Your task to perform on an android device: empty trash in the gmail app Image 0: 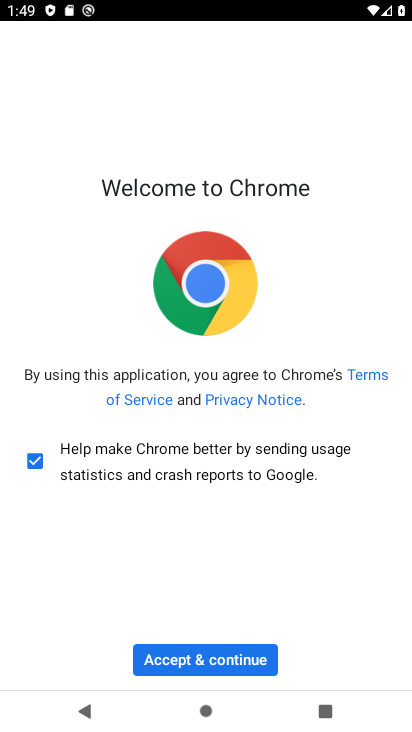
Step 0: press home button
Your task to perform on an android device: empty trash in the gmail app Image 1: 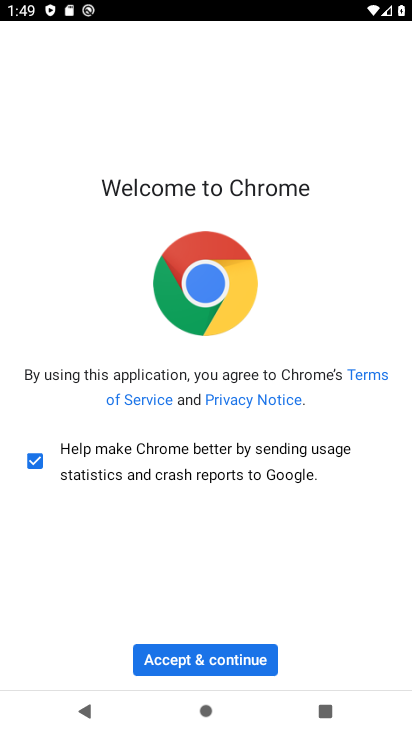
Step 1: press home button
Your task to perform on an android device: empty trash in the gmail app Image 2: 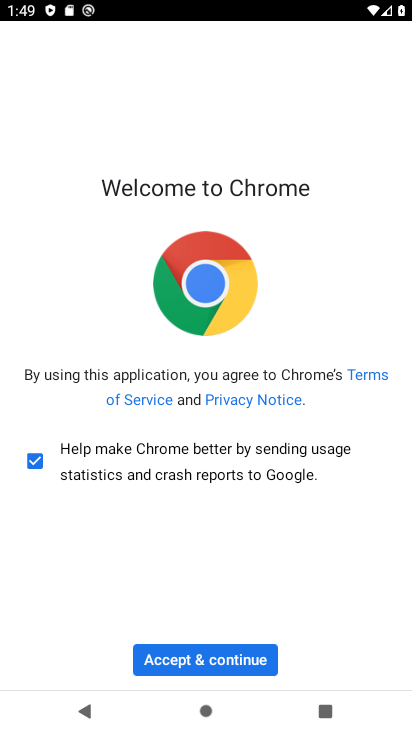
Step 2: click (206, 339)
Your task to perform on an android device: empty trash in the gmail app Image 3: 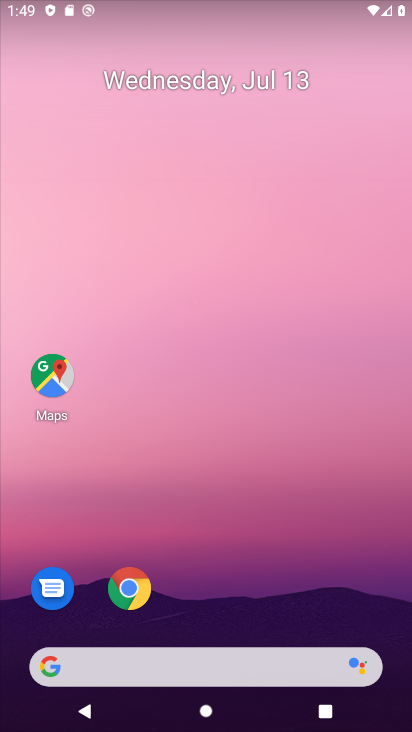
Step 3: drag from (233, 609) to (259, 160)
Your task to perform on an android device: empty trash in the gmail app Image 4: 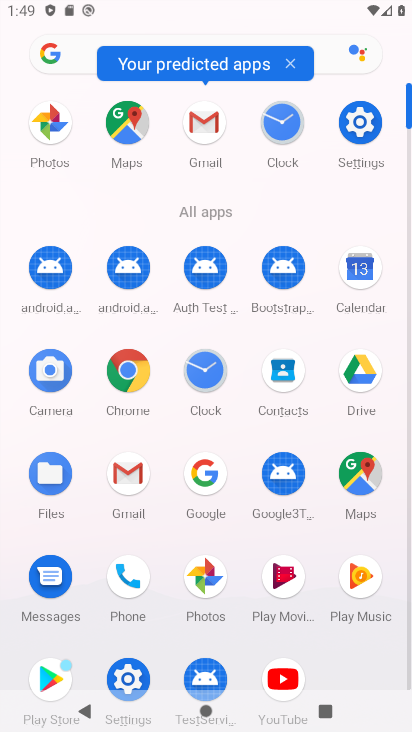
Step 4: click (125, 469)
Your task to perform on an android device: empty trash in the gmail app Image 5: 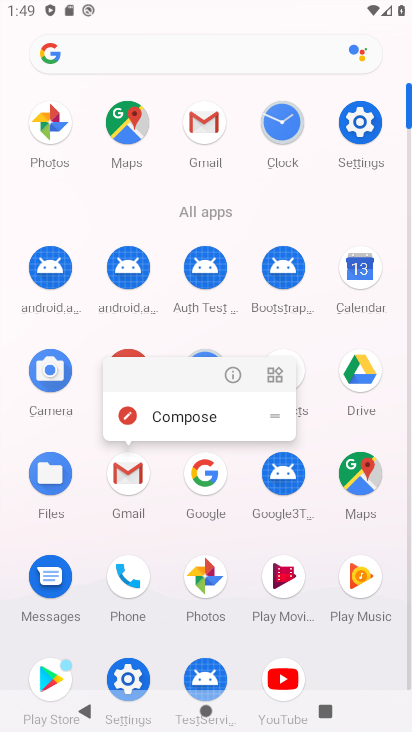
Step 5: click (227, 372)
Your task to perform on an android device: empty trash in the gmail app Image 6: 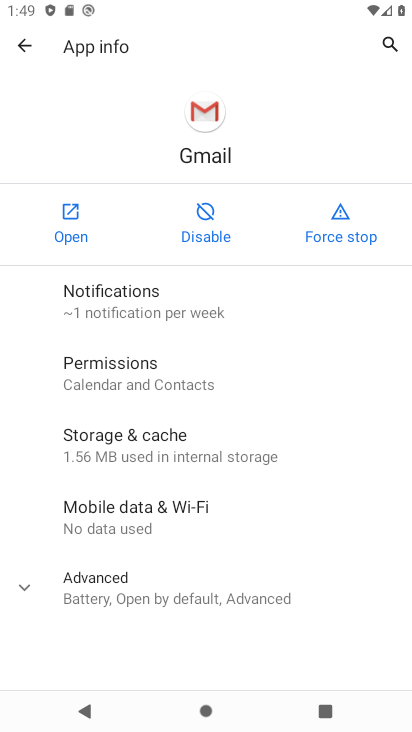
Step 6: click (64, 223)
Your task to perform on an android device: empty trash in the gmail app Image 7: 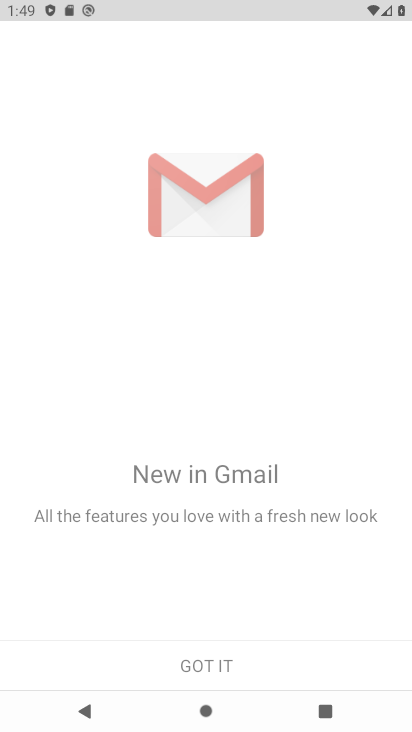
Step 7: drag from (196, 588) to (191, 229)
Your task to perform on an android device: empty trash in the gmail app Image 8: 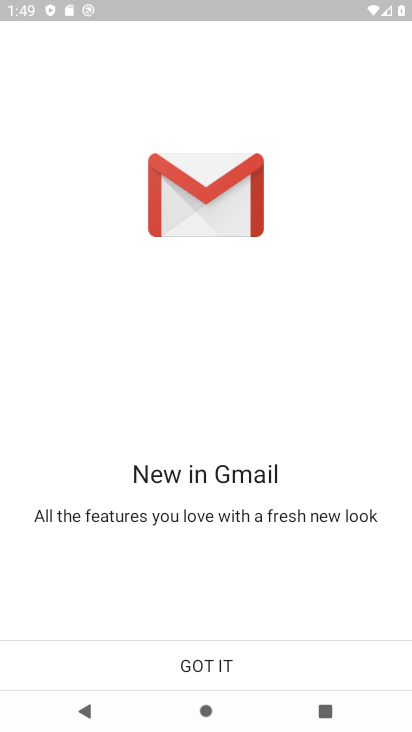
Step 8: click (199, 661)
Your task to perform on an android device: empty trash in the gmail app Image 9: 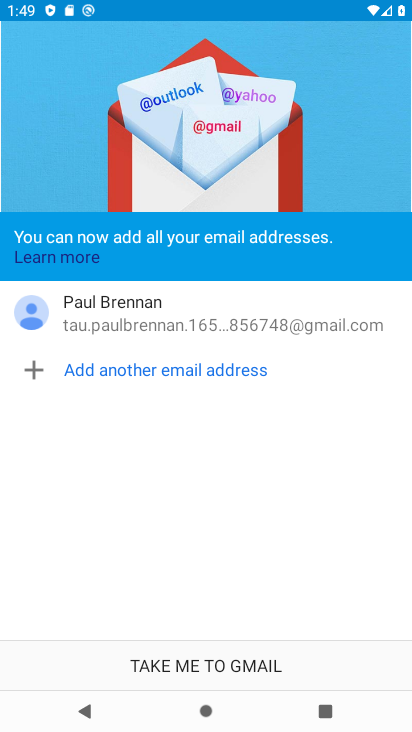
Step 9: click (174, 665)
Your task to perform on an android device: empty trash in the gmail app Image 10: 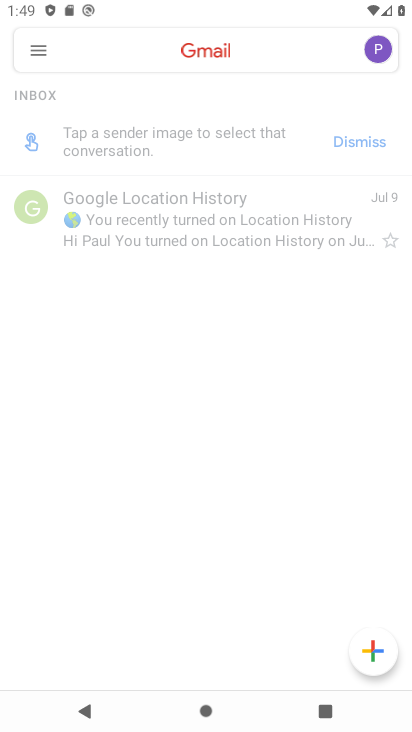
Step 10: click (41, 53)
Your task to perform on an android device: empty trash in the gmail app Image 11: 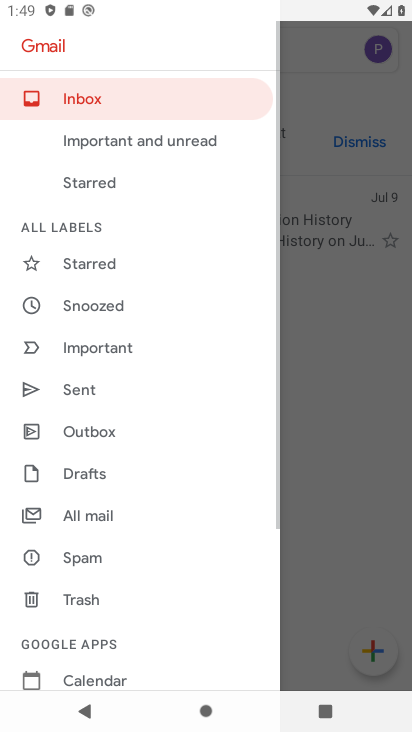
Step 11: drag from (116, 494) to (145, 207)
Your task to perform on an android device: empty trash in the gmail app Image 12: 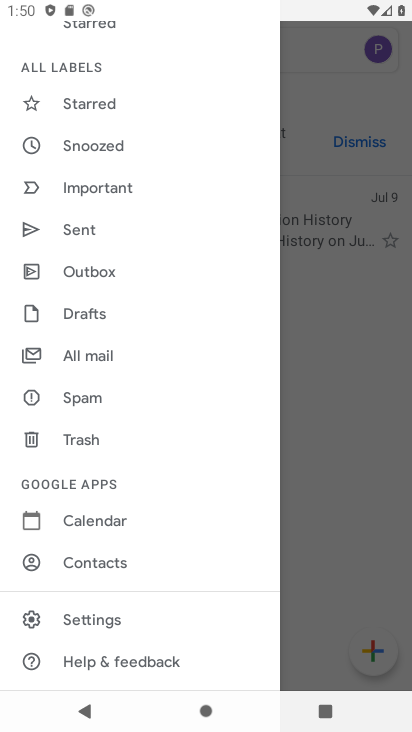
Step 12: drag from (115, 474) to (178, 226)
Your task to perform on an android device: empty trash in the gmail app Image 13: 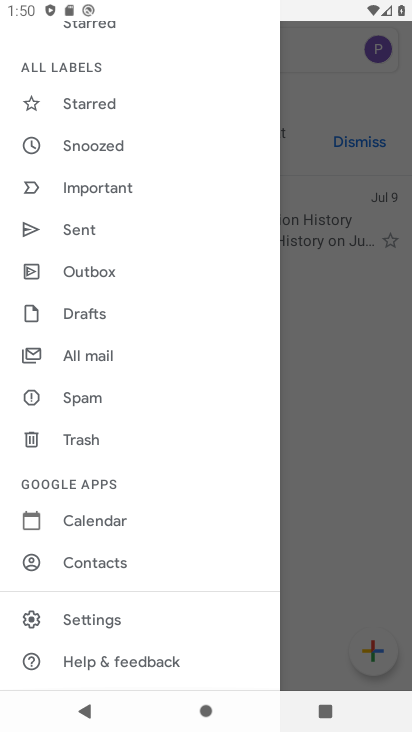
Step 13: drag from (156, 211) to (133, 700)
Your task to perform on an android device: empty trash in the gmail app Image 14: 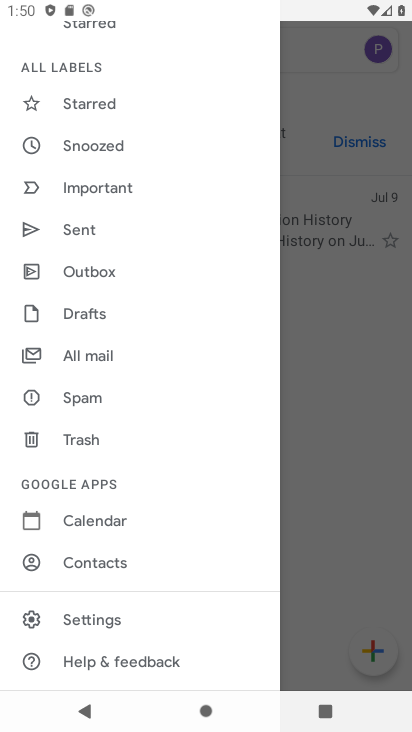
Step 14: drag from (155, 590) to (181, 175)
Your task to perform on an android device: empty trash in the gmail app Image 15: 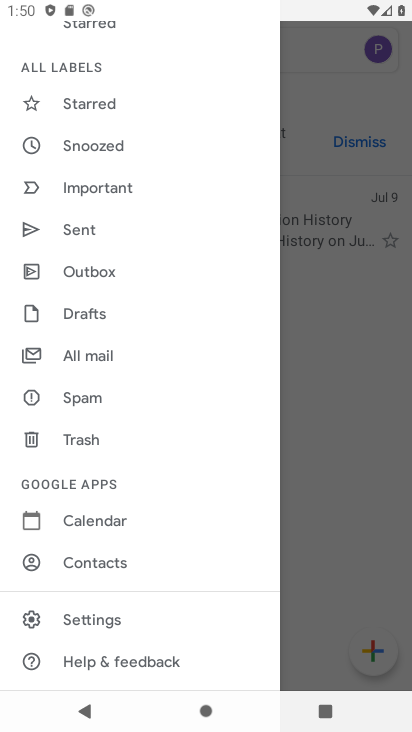
Step 15: click (60, 442)
Your task to perform on an android device: empty trash in the gmail app Image 16: 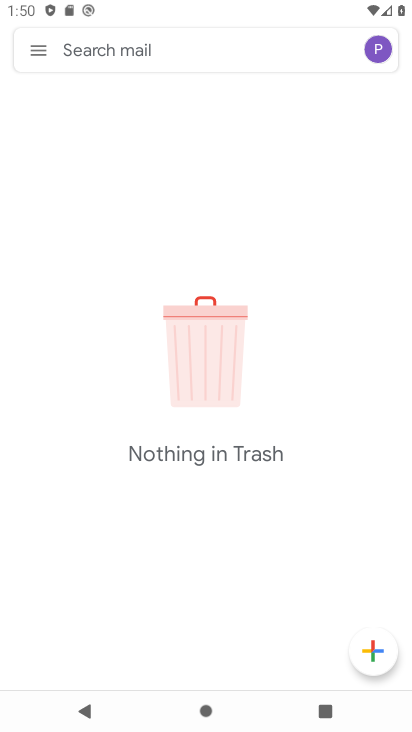
Step 16: click (232, 429)
Your task to perform on an android device: empty trash in the gmail app Image 17: 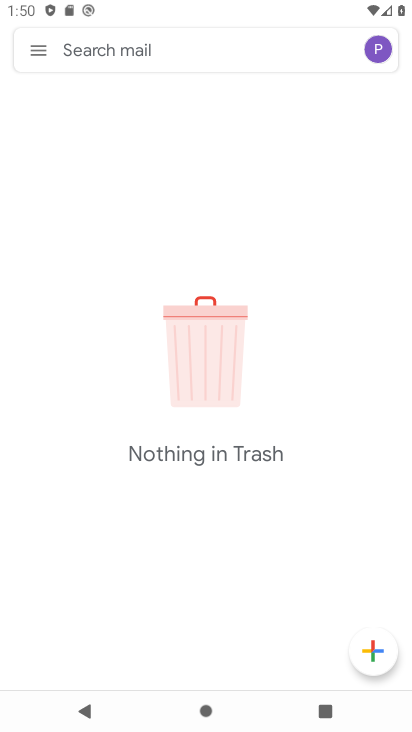
Step 17: click (213, 620)
Your task to perform on an android device: empty trash in the gmail app Image 18: 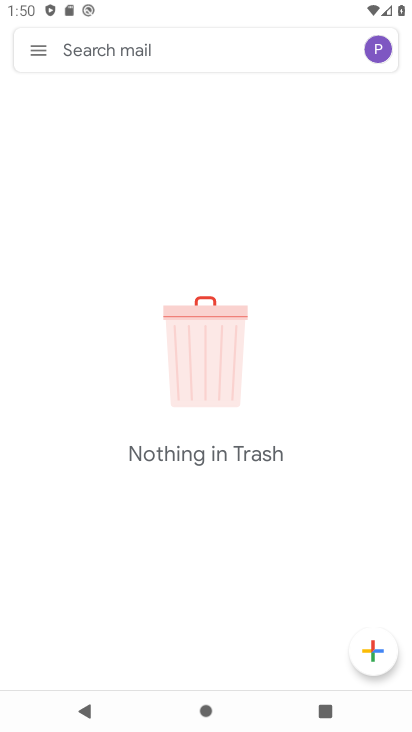
Step 18: click (218, 561)
Your task to perform on an android device: empty trash in the gmail app Image 19: 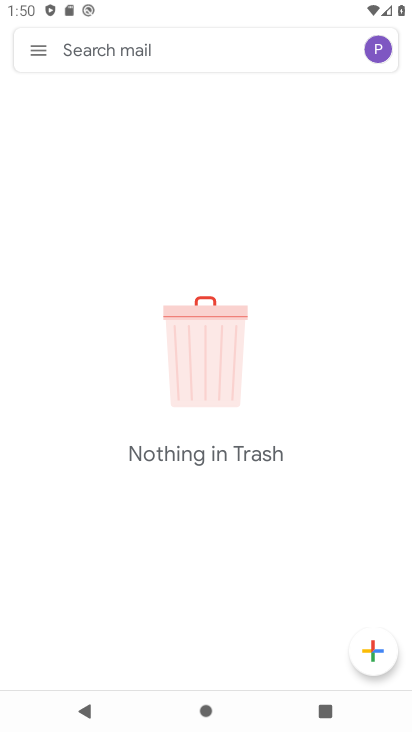
Step 19: click (223, 519)
Your task to perform on an android device: empty trash in the gmail app Image 20: 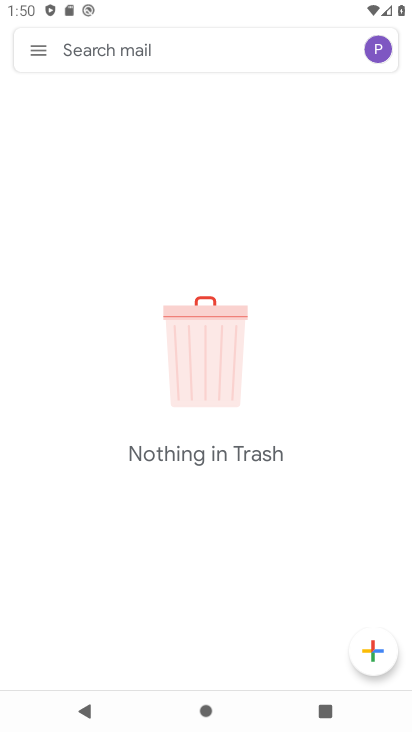
Step 20: click (223, 519)
Your task to perform on an android device: empty trash in the gmail app Image 21: 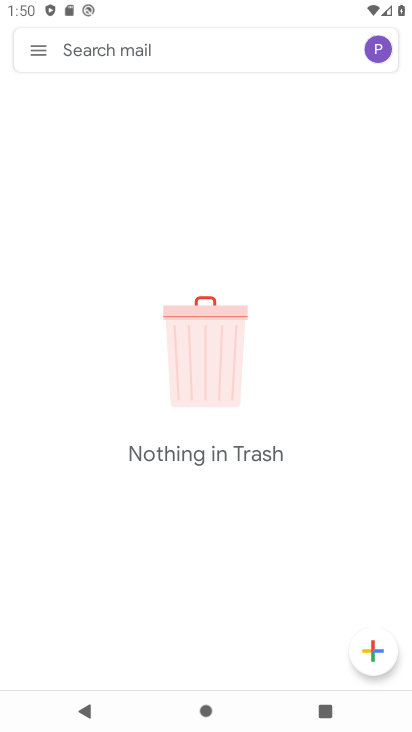
Step 21: click (34, 64)
Your task to perform on an android device: empty trash in the gmail app Image 22: 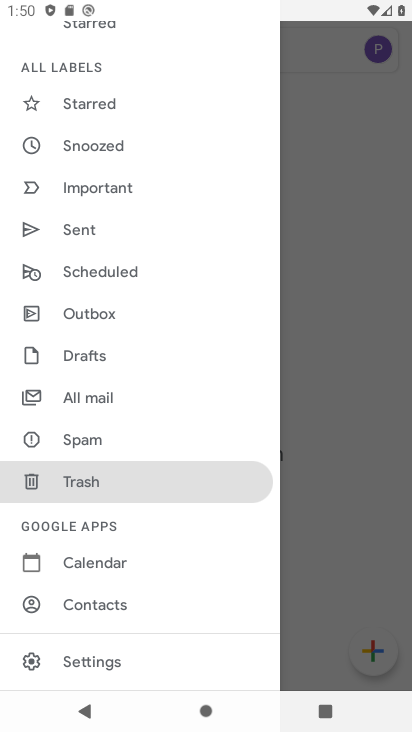
Step 22: click (114, 469)
Your task to perform on an android device: empty trash in the gmail app Image 23: 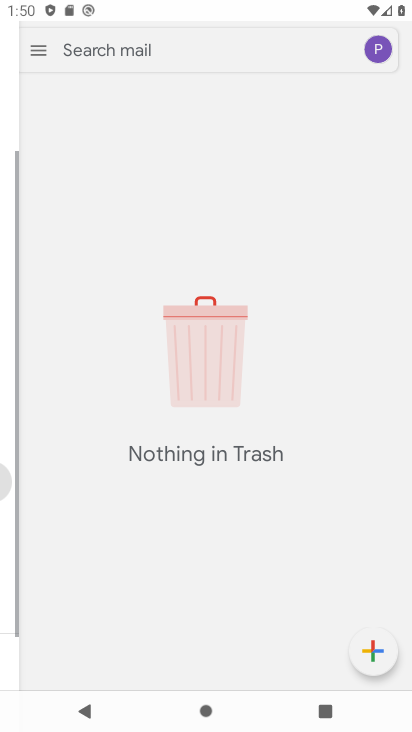
Step 23: click (318, 406)
Your task to perform on an android device: empty trash in the gmail app Image 24: 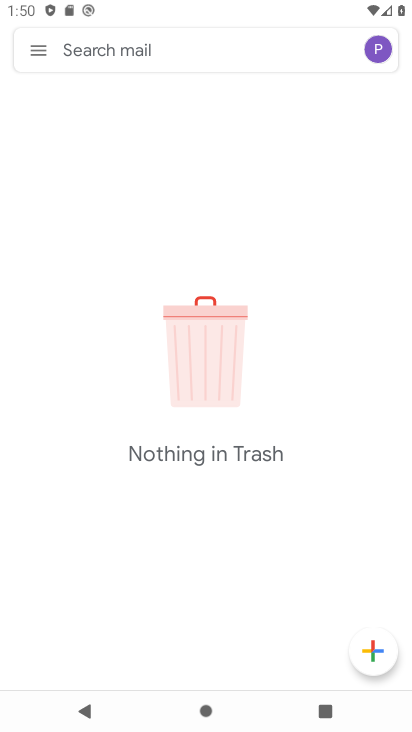
Step 24: task complete